Your task to perform on an android device: turn on notifications settings in the gmail app Image 0: 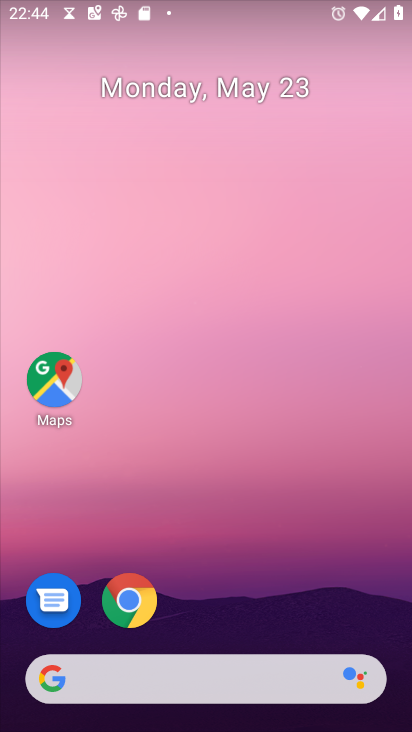
Step 0: drag from (213, 724) to (209, 183)
Your task to perform on an android device: turn on notifications settings in the gmail app Image 1: 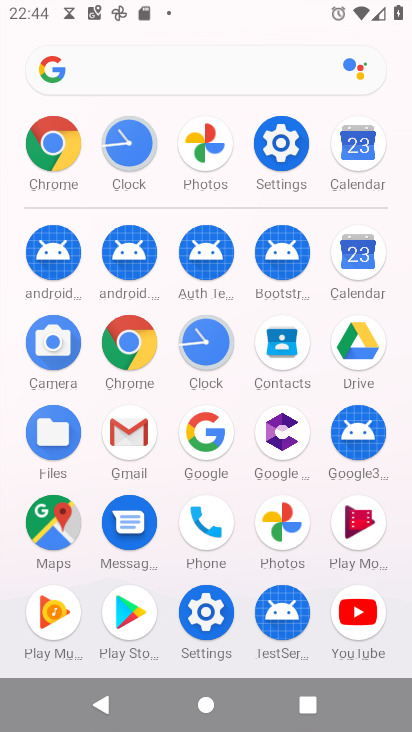
Step 1: click (123, 420)
Your task to perform on an android device: turn on notifications settings in the gmail app Image 2: 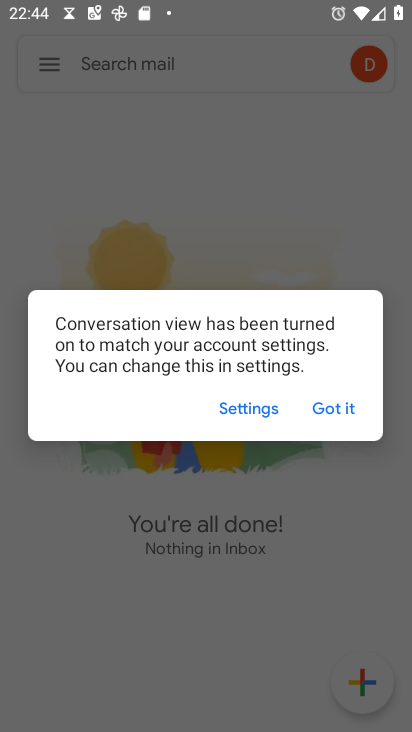
Step 2: click (337, 407)
Your task to perform on an android device: turn on notifications settings in the gmail app Image 3: 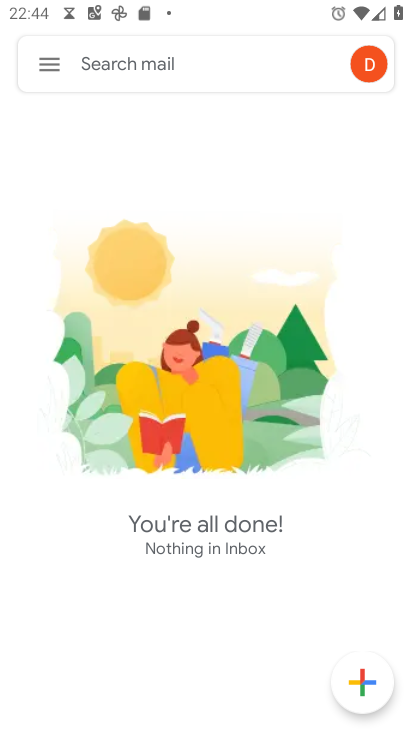
Step 3: click (55, 58)
Your task to perform on an android device: turn on notifications settings in the gmail app Image 4: 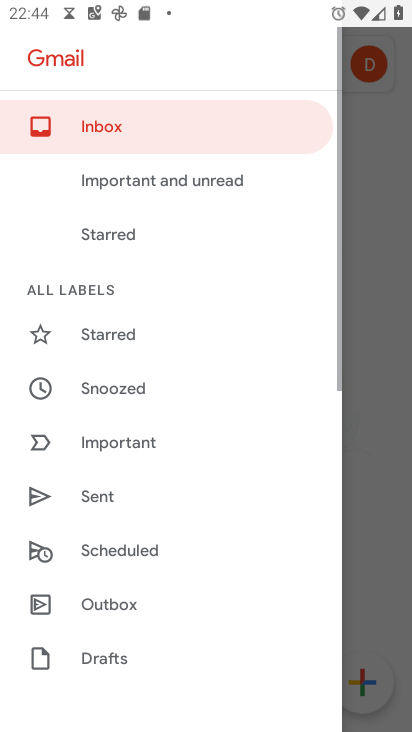
Step 4: drag from (155, 654) to (157, 186)
Your task to perform on an android device: turn on notifications settings in the gmail app Image 5: 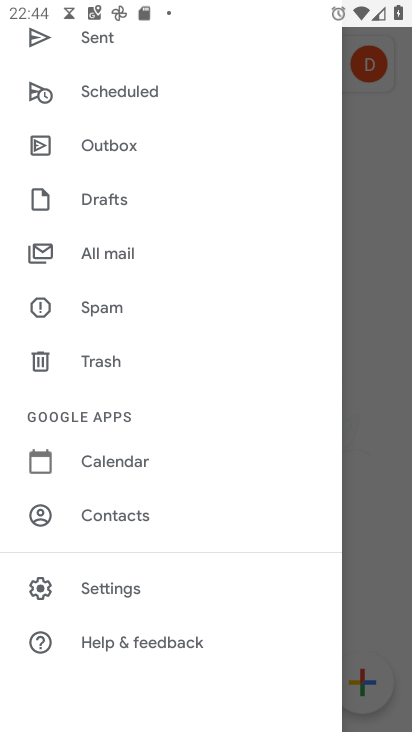
Step 5: click (111, 586)
Your task to perform on an android device: turn on notifications settings in the gmail app Image 6: 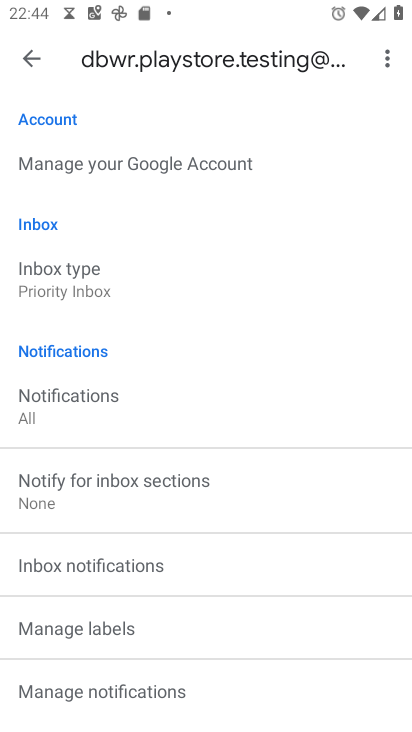
Step 6: click (61, 401)
Your task to perform on an android device: turn on notifications settings in the gmail app Image 7: 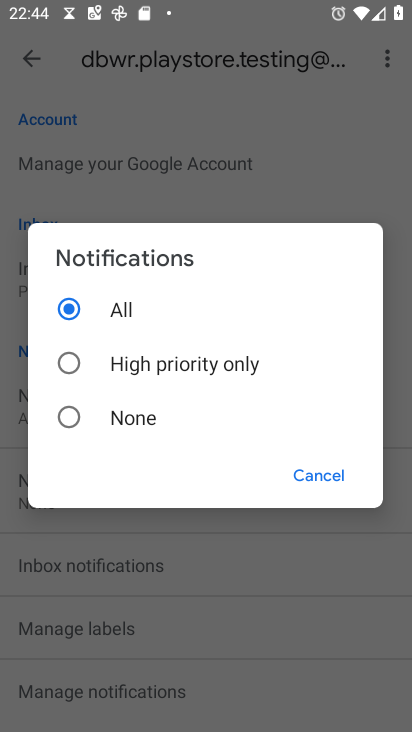
Step 7: click (329, 472)
Your task to perform on an android device: turn on notifications settings in the gmail app Image 8: 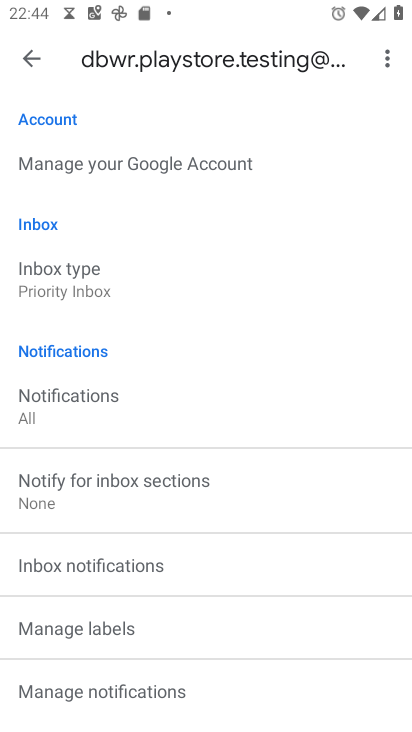
Step 8: task complete